Your task to perform on an android device: Open calendar and show me the fourth week of next month Image 0: 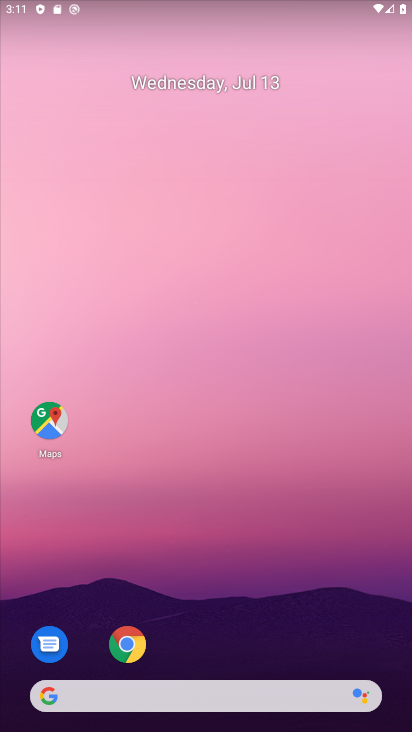
Step 0: drag from (209, 693) to (253, 210)
Your task to perform on an android device: Open calendar and show me the fourth week of next month Image 1: 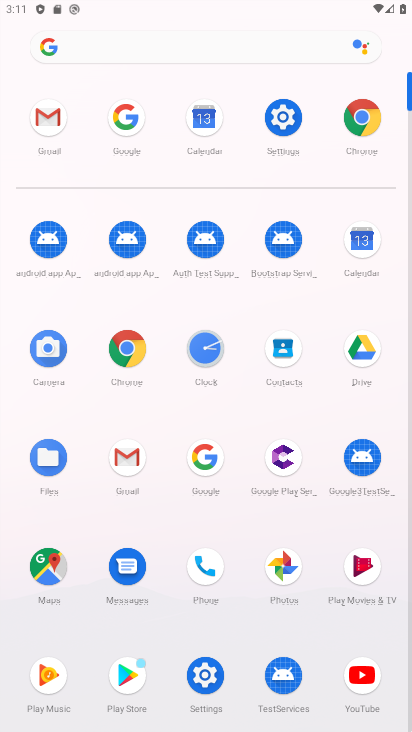
Step 1: click (365, 244)
Your task to perform on an android device: Open calendar and show me the fourth week of next month Image 2: 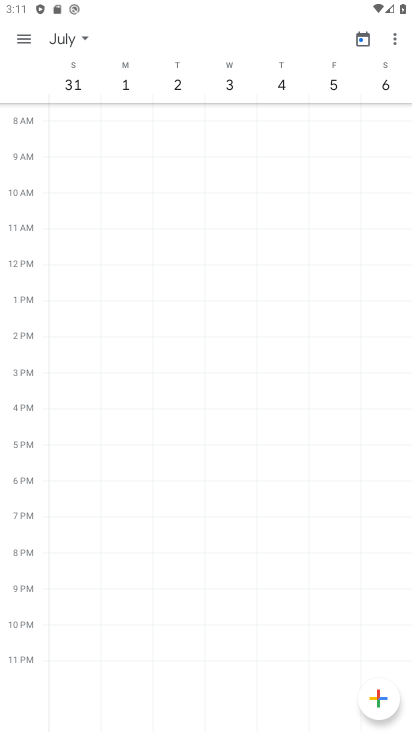
Step 2: click (367, 42)
Your task to perform on an android device: Open calendar and show me the fourth week of next month Image 3: 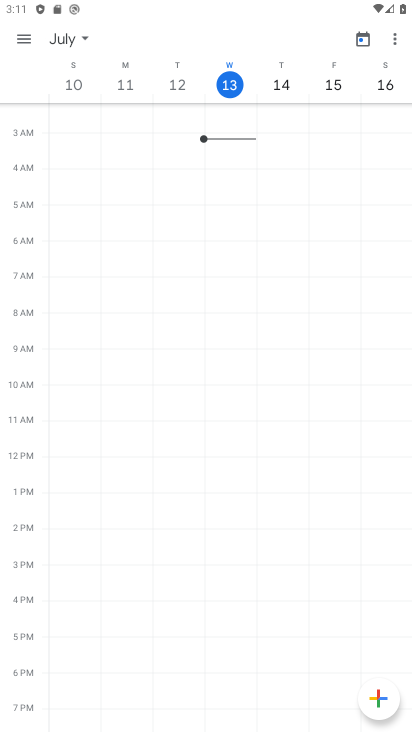
Step 3: click (82, 35)
Your task to perform on an android device: Open calendar and show me the fourth week of next month Image 4: 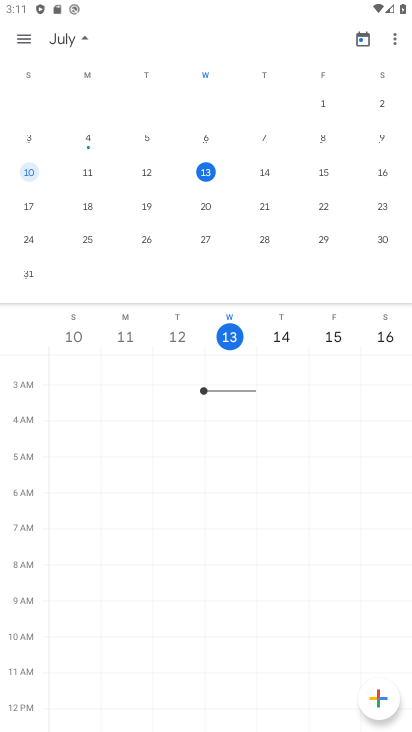
Step 4: drag from (384, 189) to (2, 210)
Your task to perform on an android device: Open calendar and show me the fourth week of next month Image 5: 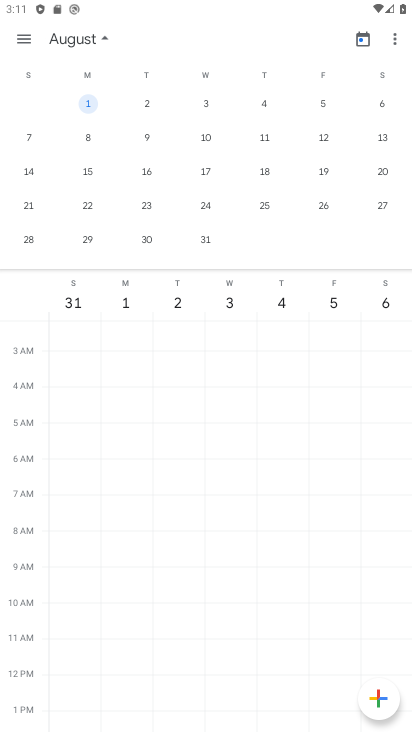
Step 5: click (87, 205)
Your task to perform on an android device: Open calendar and show me the fourth week of next month Image 6: 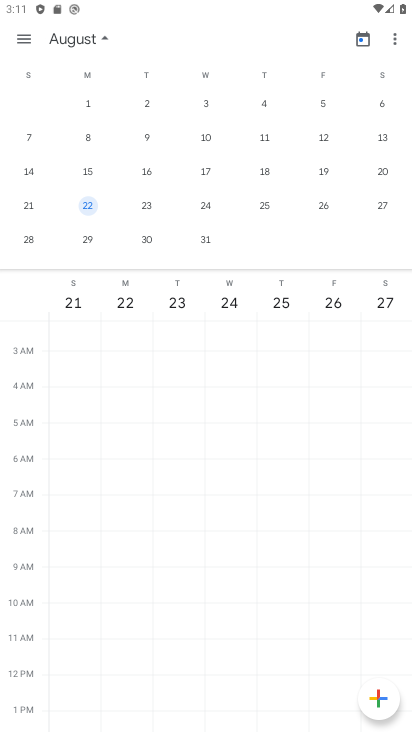
Step 6: click (21, 40)
Your task to perform on an android device: Open calendar and show me the fourth week of next month Image 7: 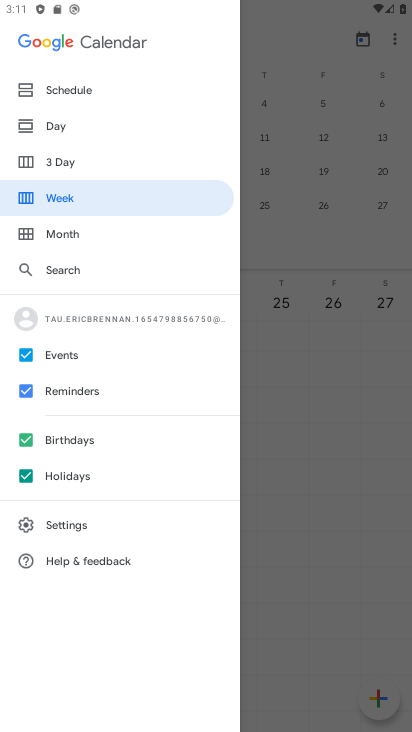
Step 7: click (82, 193)
Your task to perform on an android device: Open calendar and show me the fourth week of next month Image 8: 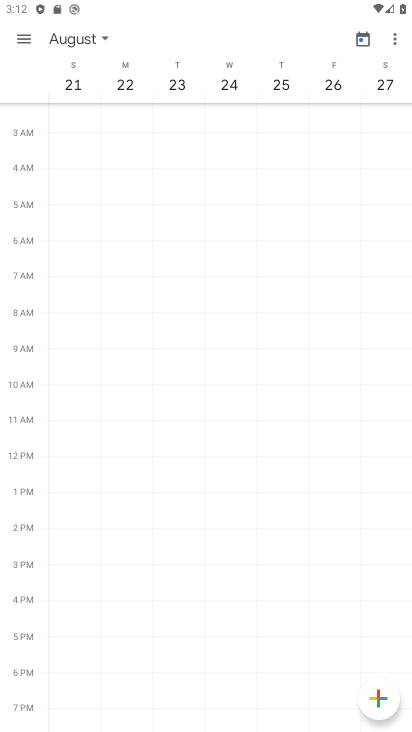
Step 8: task complete